Your task to perform on an android device: Open Google Image 0: 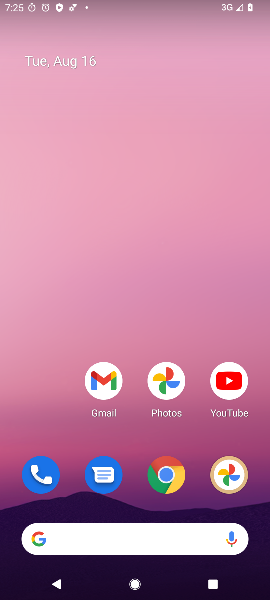
Step 0: drag from (195, 507) to (82, 13)
Your task to perform on an android device: Open Google Image 1: 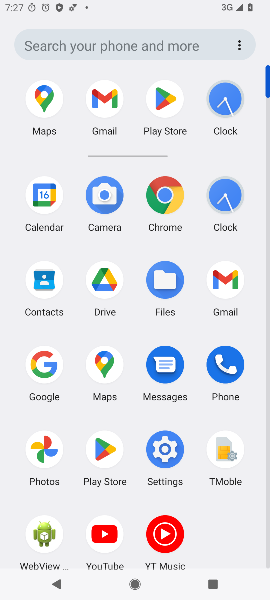
Step 1: click (44, 376)
Your task to perform on an android device: Open Google Image 2: 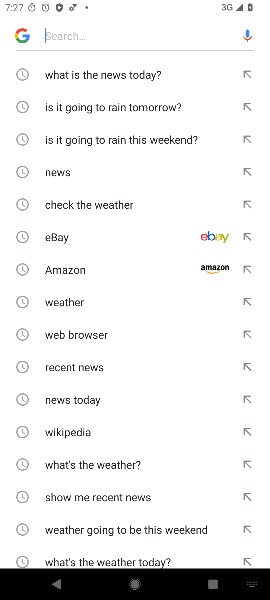
Step 2: press back button
Your task to perform on an android device: Open Google Image 3: 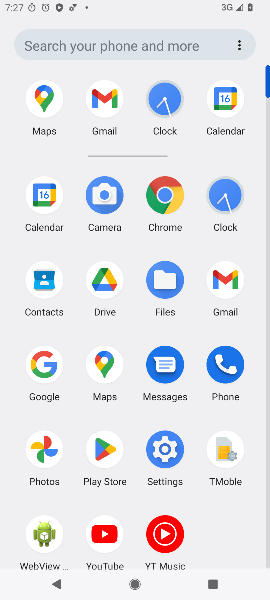
Step 3: click (40, 366)
Your task to perform on an android device: Open Google Image 4: 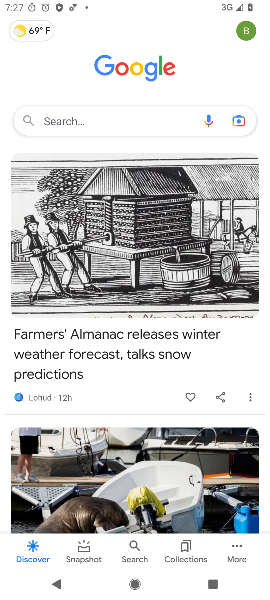
Step 4: task complete